Your task to perform on an android device: find which apps use the phone's location Image 0: 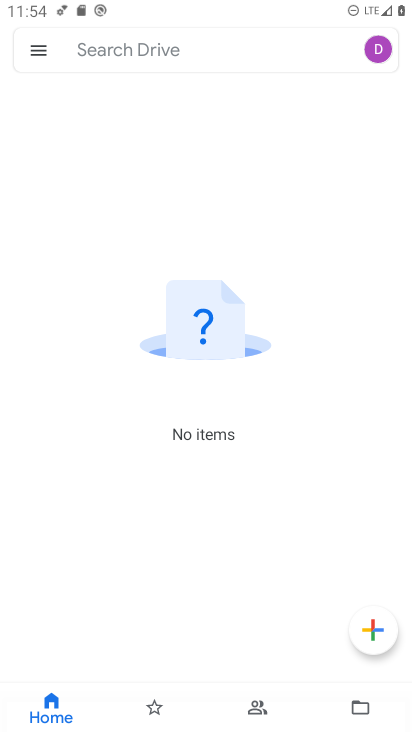
Step 0: press home button
Your task to perform on an android device: find which apps use the phone's location Image 1: 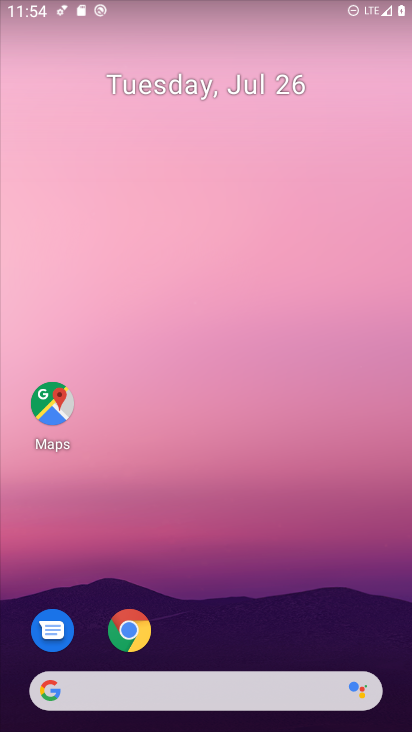
Step 1: drag from (366, 639) to (343, 161)
Your task to perform on an android device: find which apps use the phone's location Image 2: 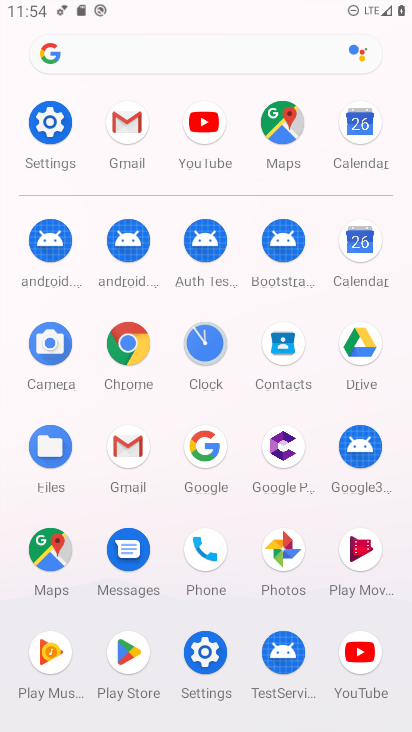
Step 2: click (208, 650)
Your task to perform on an android device: find which apps use the phone's location Image 3: 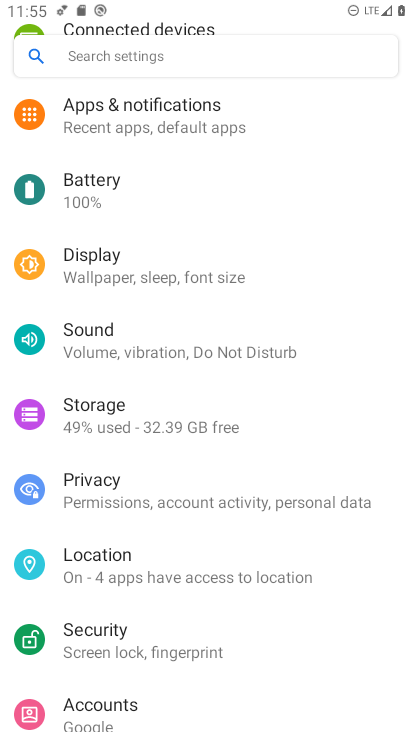
Step 3: click (108, 558)
Your task to perform on an android device: find which apps use the phone's location Image 4: 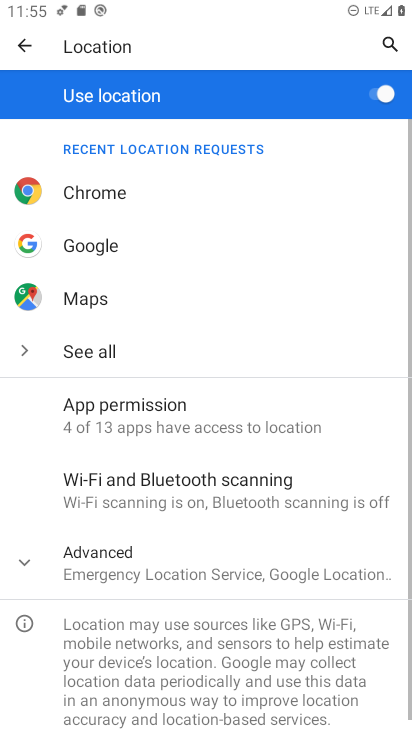
Step 4: click (104, 411)
Your task to perform on an android device: find which apps use the phone's location Image 5: 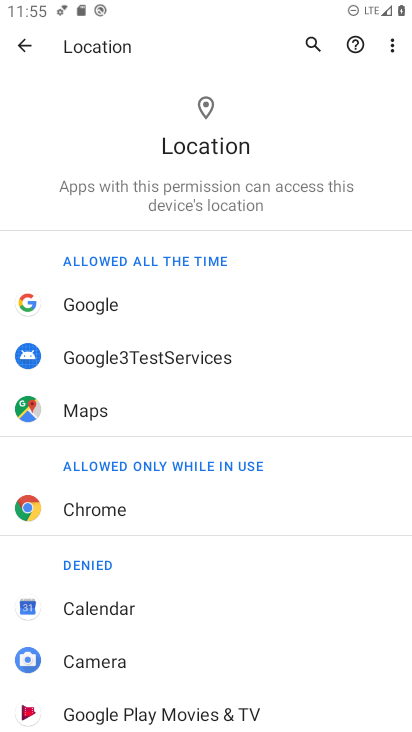
Step 5: drag from (280, 592) to (291, 138)
Your task to perform on an android device: find which apps use the phone's location Image 6: 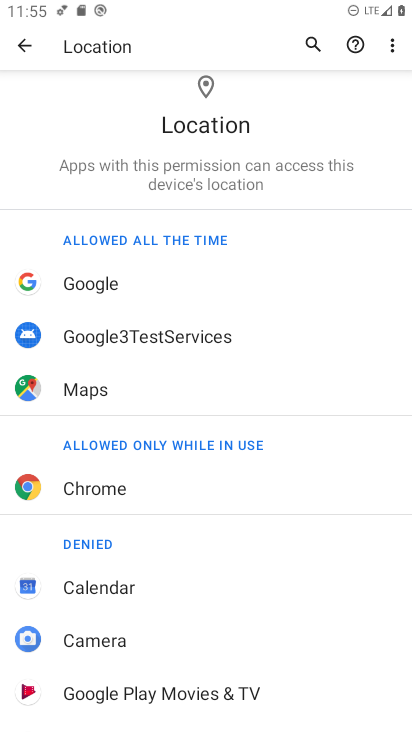
Step 6: drag from (291, 692) to (299, 259)
Your task to perform on an android device: find which apps use the phone's location Image 7: 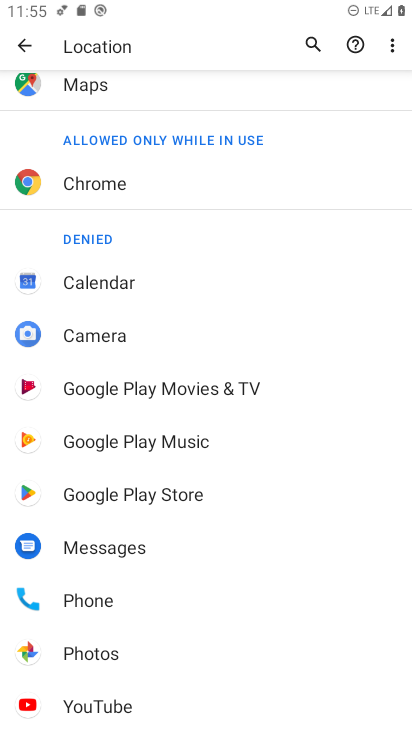
Step 7: click (75, 654)
Your task to perform on an android device: find which apps use the phone's location Image 8: 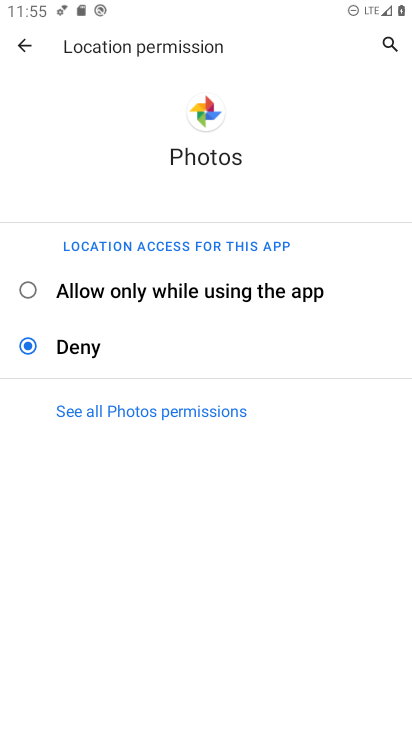
Step 8: task complete